Your task to perform on an android device: Go to internet settings Image 0: 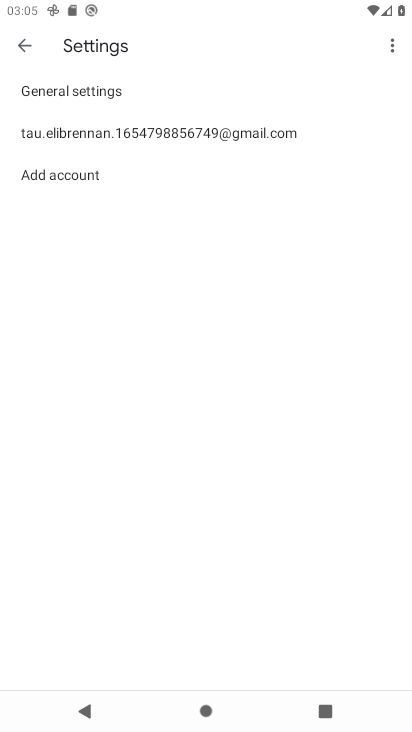
Step 0: press home button
Your task to perform on an android device: Go to internet settings Image 1: 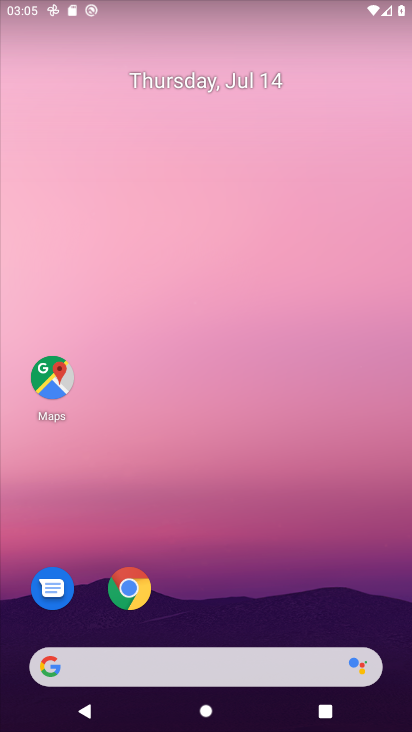
Step 1: drag from (219, 622) to (111, 221)
Your task to perform on an android device: Go to internet settings Image 2: 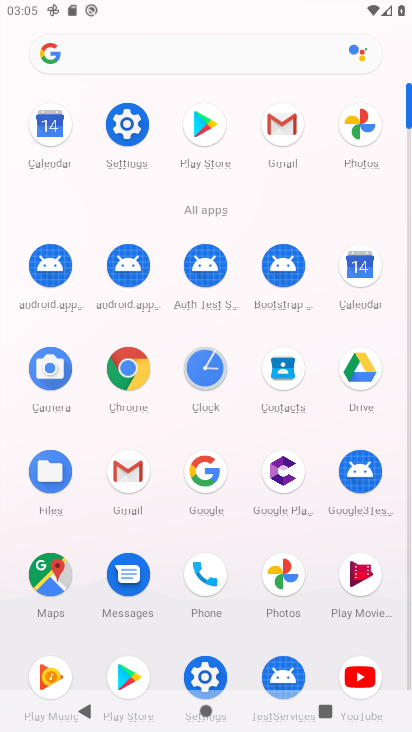
Step 2: click (132, 124)
Your task to perform on an android device: Go to internet settings Image 3: 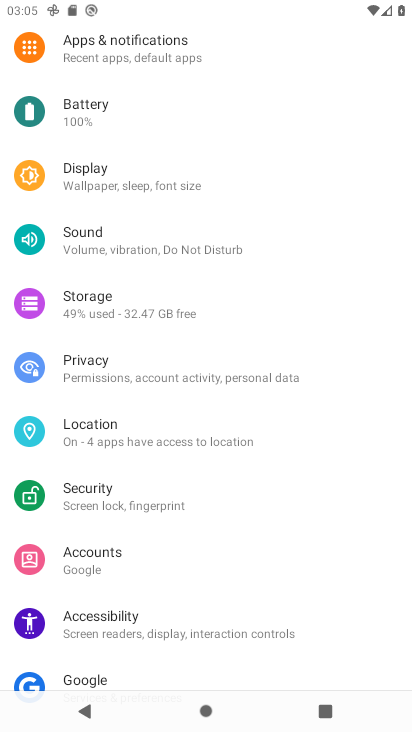
Step 3: drag from (137, 82) to (179, 545)
Your task to perform on an android device: Go to internet settings Image 4: 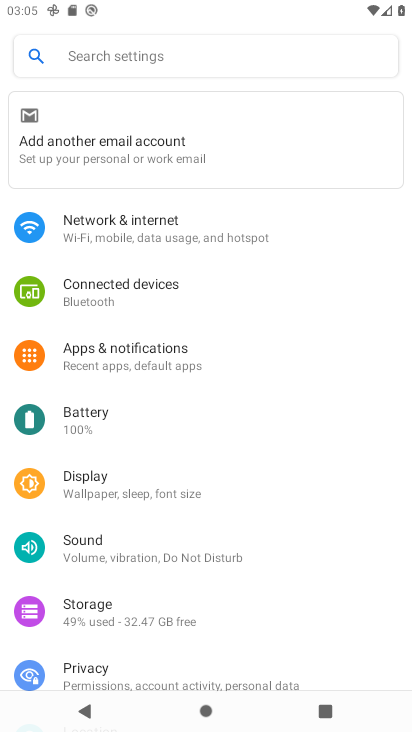
Step 4: click (178, 230)
Your task to perform on an android device: Go to internet settings Image 5: 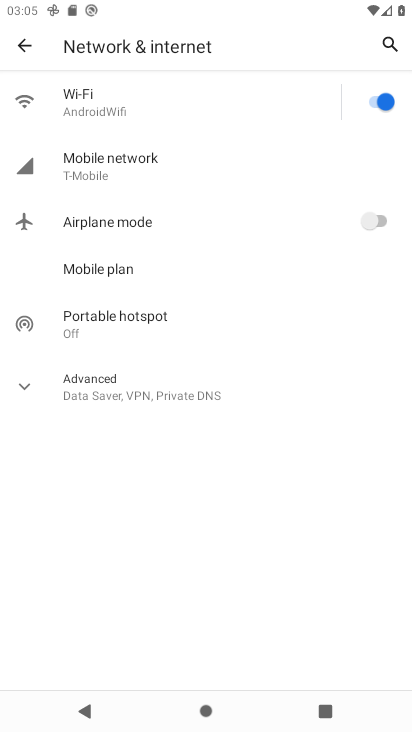
Step 5: click (106, 87)
Your task to perform on an android device: Go to internet settings Image 6: 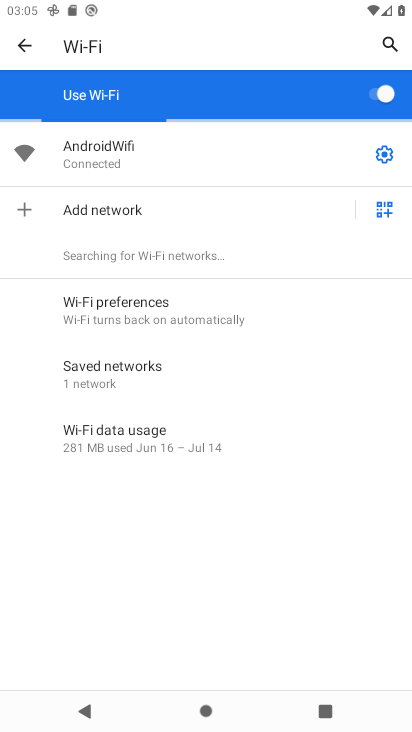
Step 6: task complete